Your task to perform on an android device: Go to eBay Image 0: 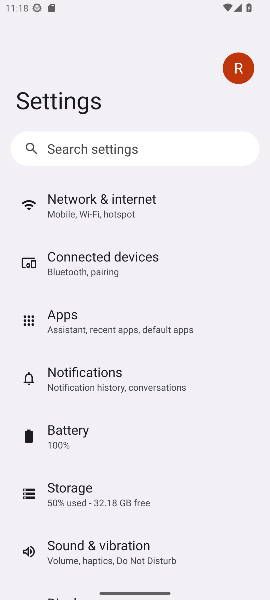
Step 0: press back button
Your task to perform on an android device: Go to eBay Image 1: 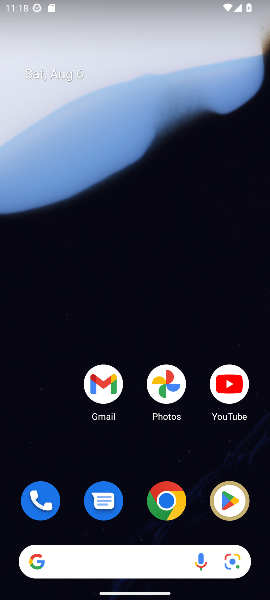
Step 1: click (162, 504)
Your task to perform on an android device: Go to eBay Image 2: 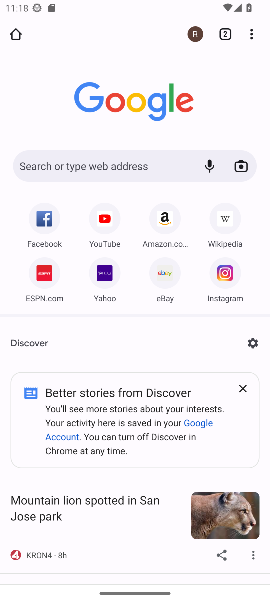
Step 2: click (160, 277)
Your task to perform on an android device: Go to eBay Image 3: 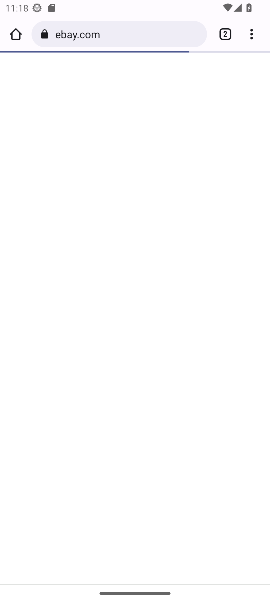
Step 3: task complete